Your task to perform on an android device: open device folders in google photos Image 0: 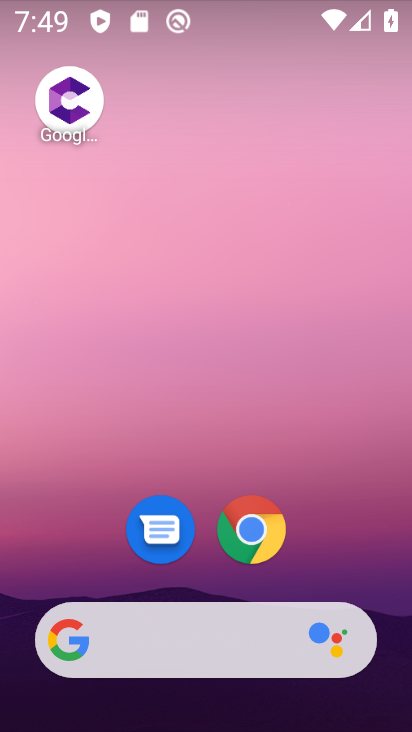
Step 0: drag from (224, 566) to (330, 3)
Your task to perform on an android device: open device folders in google photos Image 1: 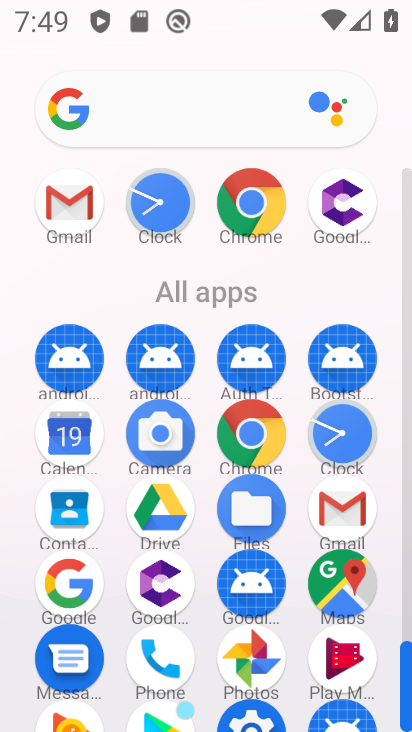
Step 1: click (253, 650)
Your task to perform on an android device: open device folders in google photos Image 2: 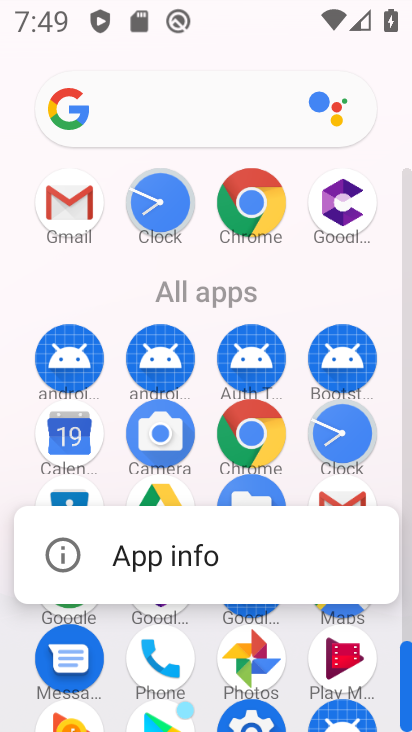
Step 2: click (254, 649)
Your task to perform on an android device: open device folders in google photos Image 3: 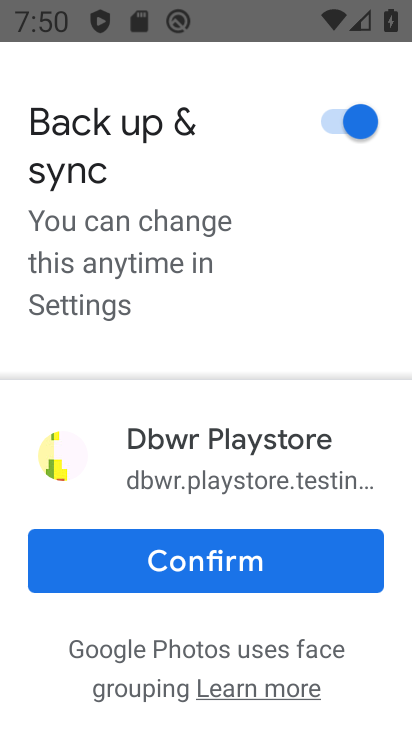
Step 3: click (206, 554)
Your task to perform on an android device: open device folders in google photos Image 4: 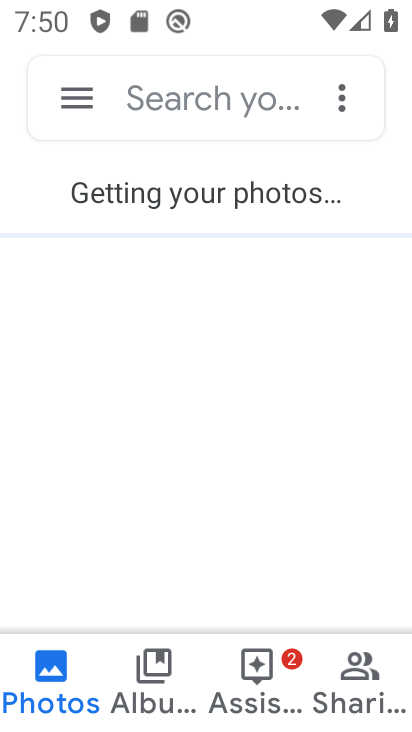
Step 4: click (91, 107)
Your task to perform on an android device: open device folders in google photos Image 5: 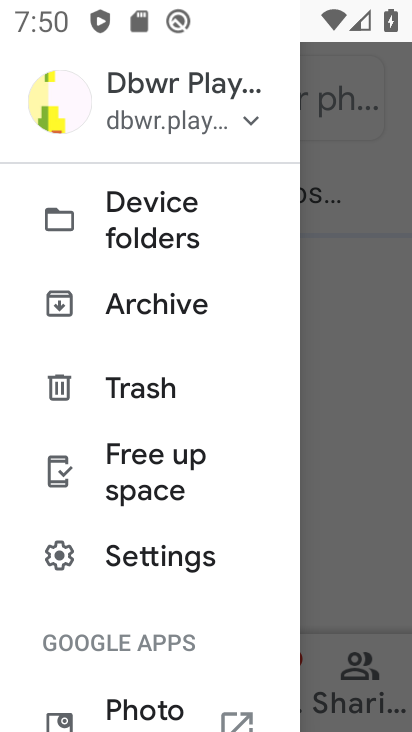
Step 5: click (111, 232)
Your task to perform on an android device: open device folders in google photos Image 6: 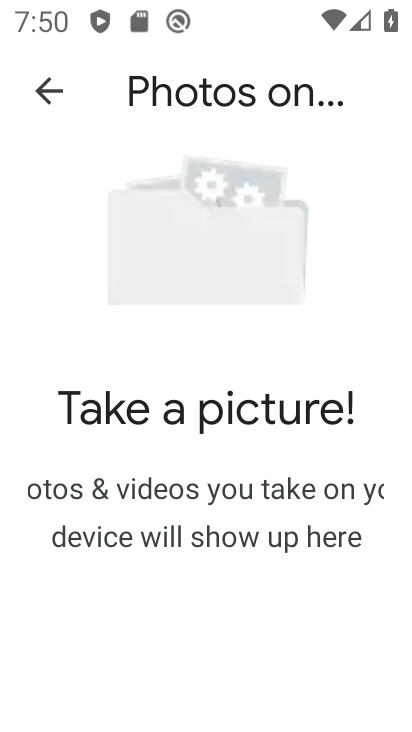
Step 6: task complete